Your task to perform on an android device: Open display settings Image 0: 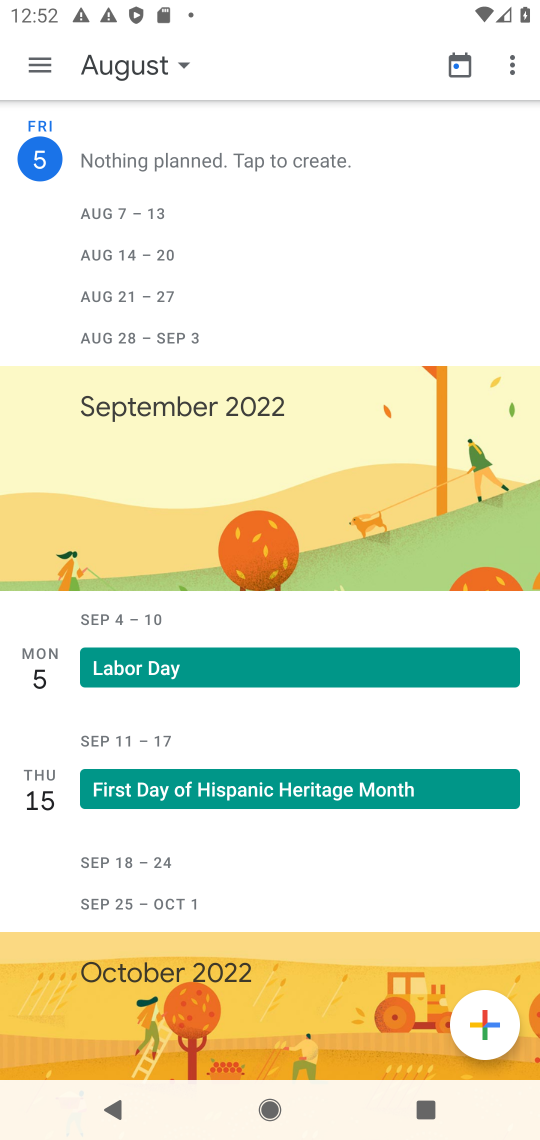
Step 0: press home button
Your task to perform on an android device: Open display settings Image 1: 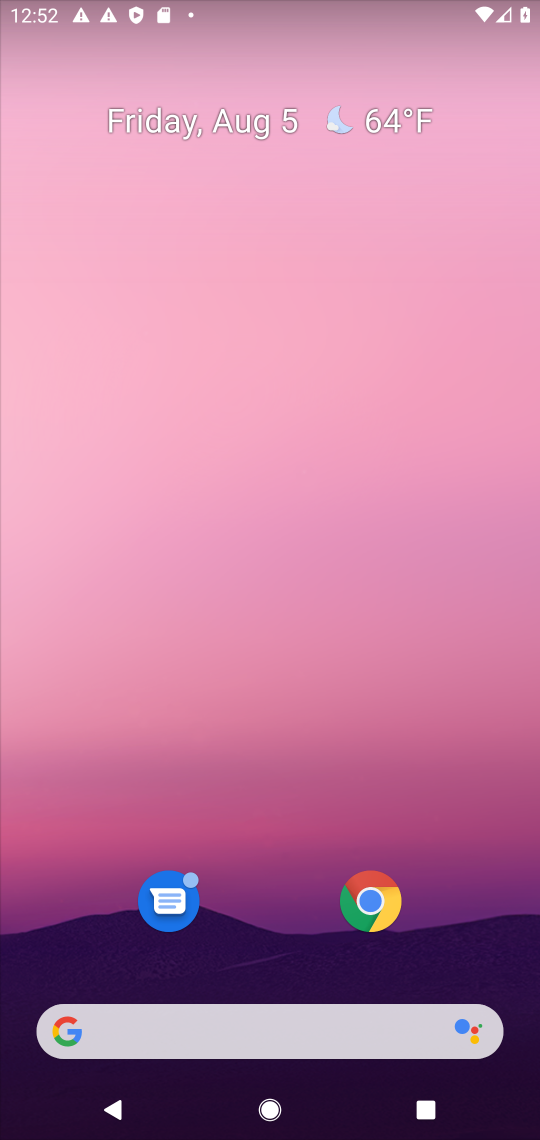
Step 1: drag from (273, 915) to (218, 101)
Your task to perform on an android device: Open display settings Image 2: 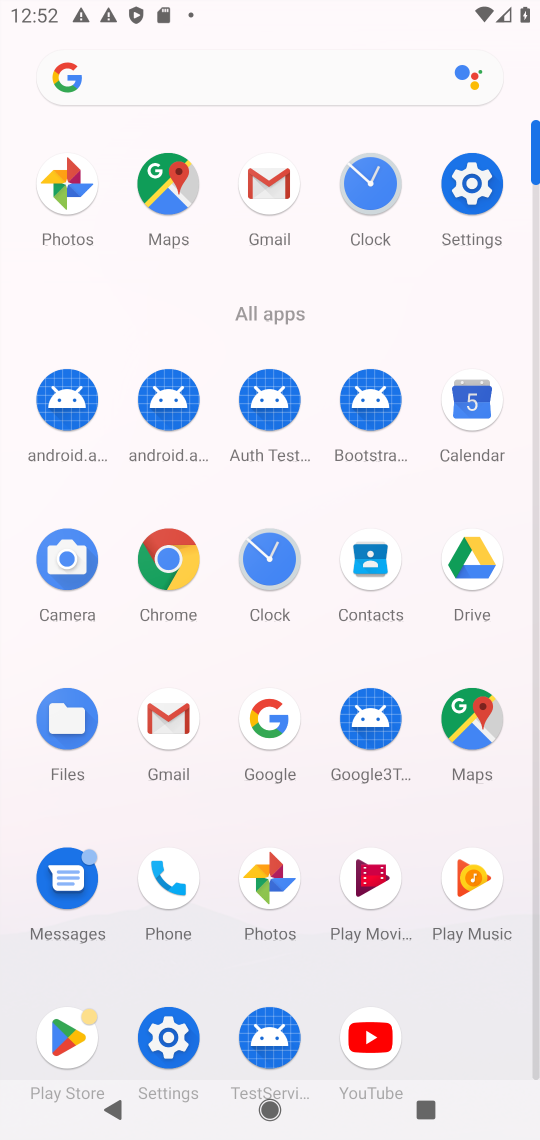
Step 2: click (461, 194)
Your task to perform on an android device: Open display settings Image 3: 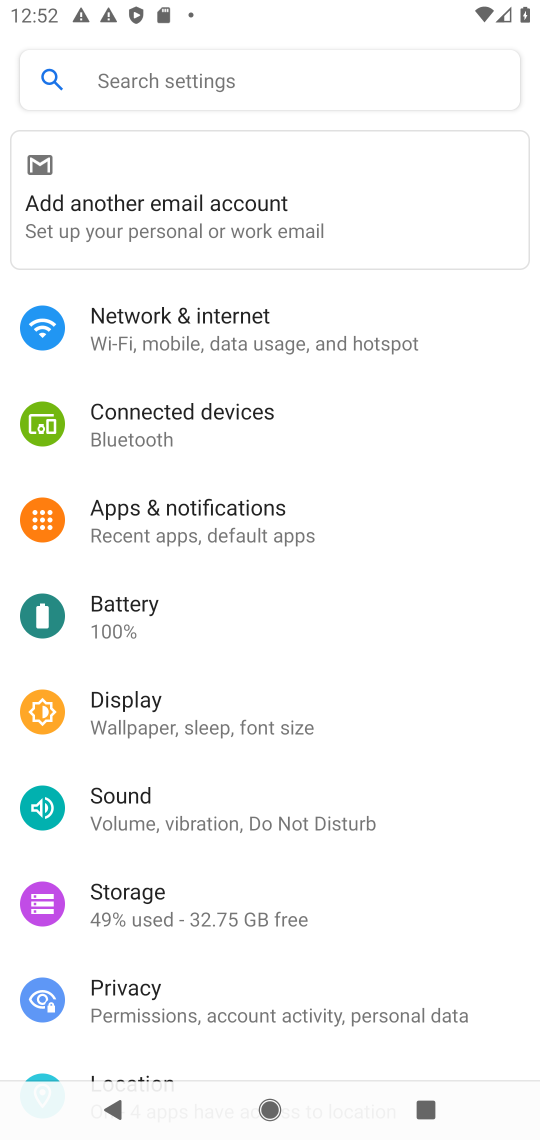
Step 3: click (170, 727)
Your task to perform on an android device: Open display settings Image 4: 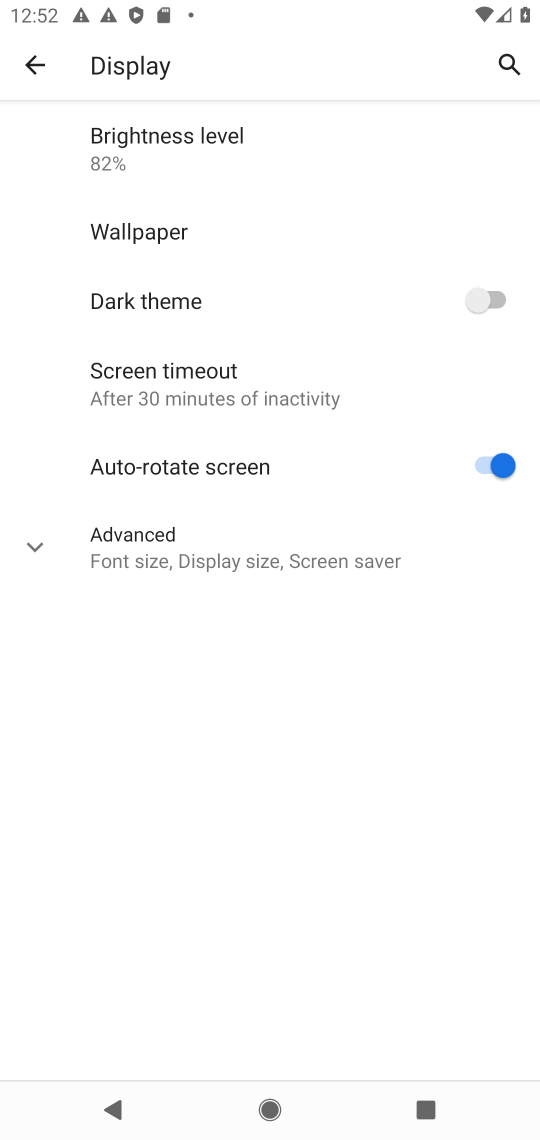
Step 4: task complete